Your task to perform on an android device: Open Maps and search for coffee Image 0: 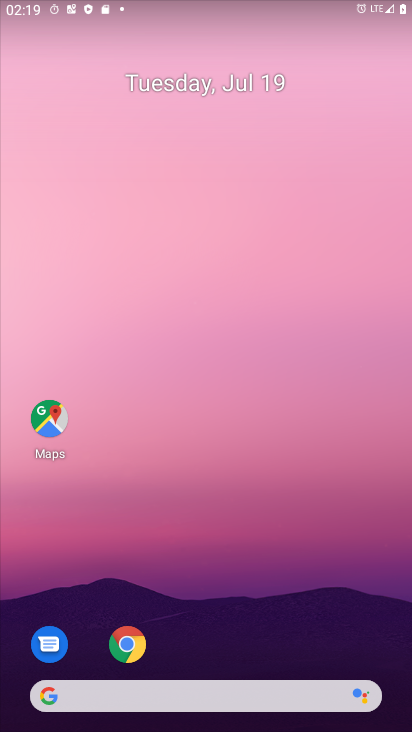
Step 0: drag from (245, 725) to (241, 78)
Your task to perform on an android device: Open Maps and search for coffee Image 1: 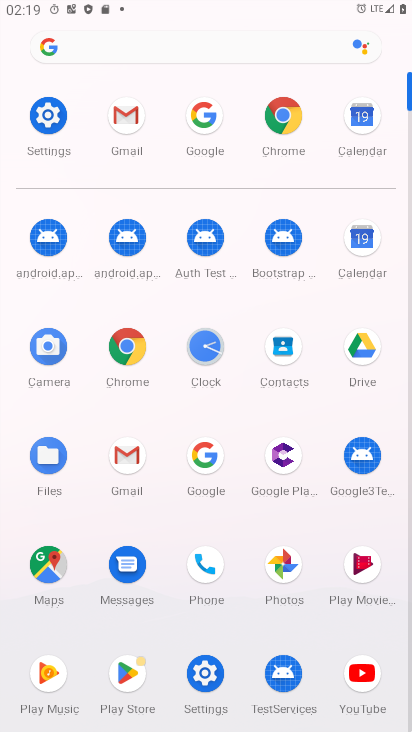
Step 1: click (39, 562)
Your task to perform on an android device: Open Maps and search for coffee Image 2: 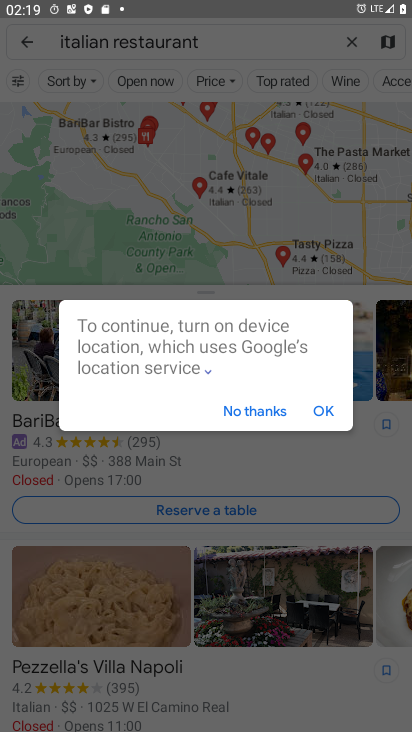
Step 2: click (253, 409)
Your task to perform on an android device: Open Maps and search for coffee Image 3: 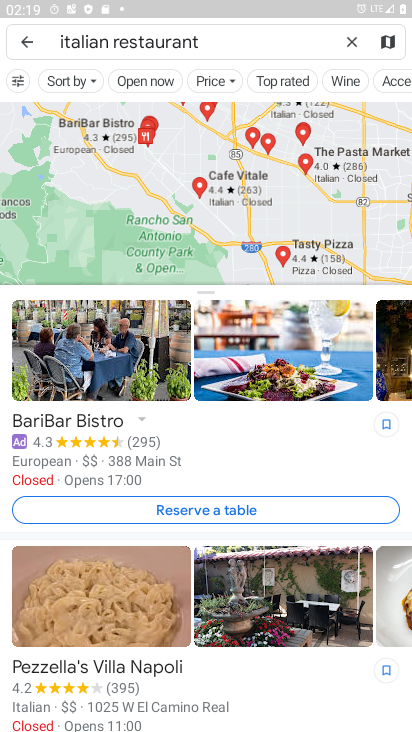
Step 3: click (351, 38)
Your task to perform on an android device: Open Maps and search for coffee Image 4: 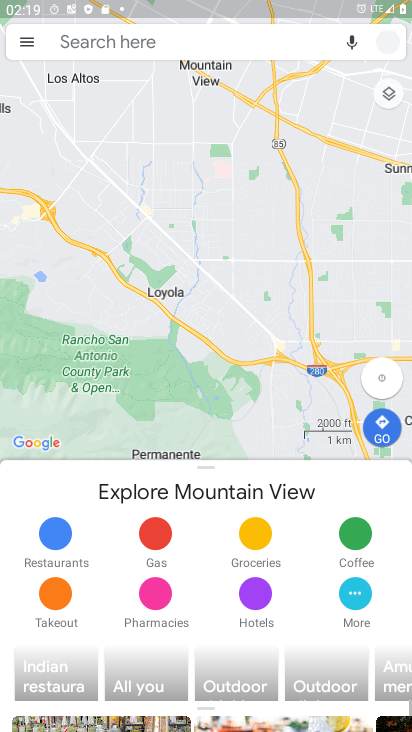
Step 4: click (220, 37)
Your task to perform on an android device: Open Maps and search for coffee Image 5: 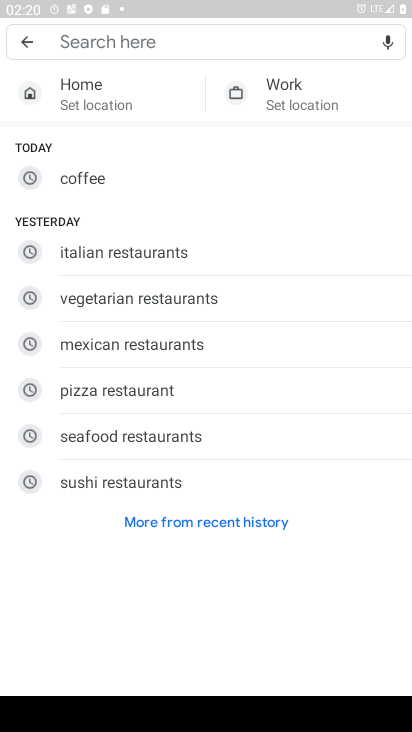
Step 5: type "coffee"
Your task to perform on an android device: Open Maps and search for coffee Image 6: 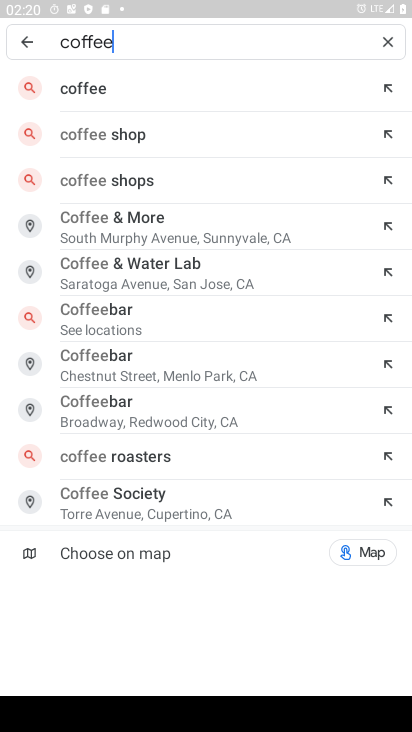
Step 6: click (65, 85)
Your task to perform on an android device: Open Maps and search for coffee Image 7: 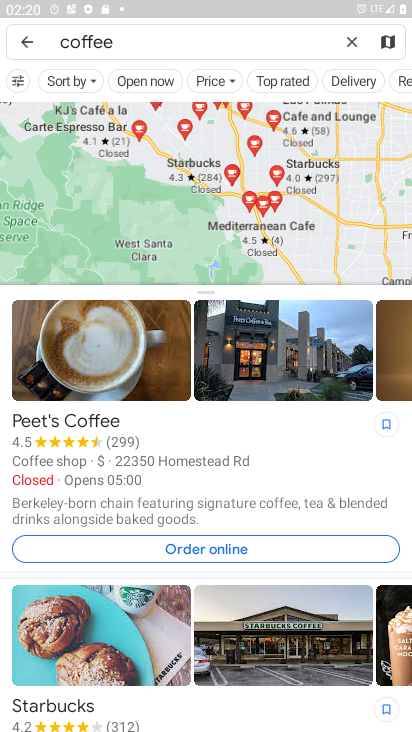
Step 7: task complete